Your task to perform on an android device: Open eBay Image 0: 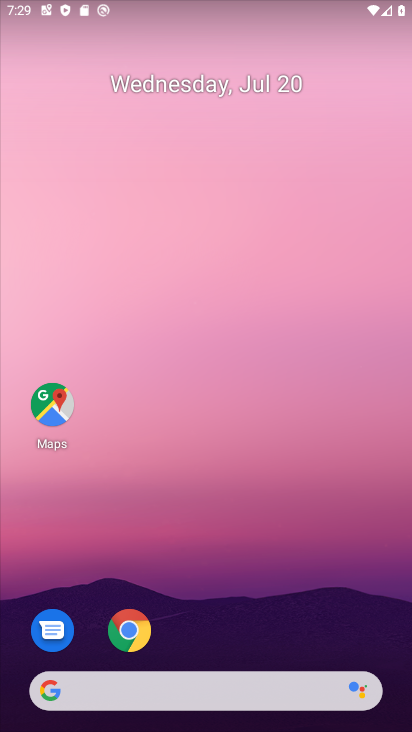
Step 0: click (131, 633)
Your task to perform on an android device: Open eBay Image 1: 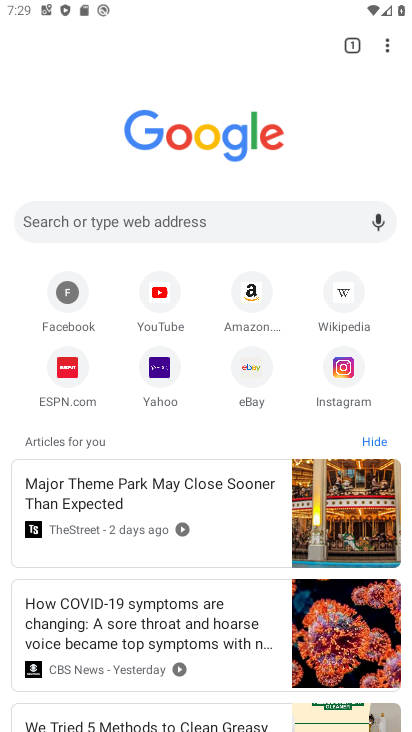
Step 1: click (251, 365)
Your task to perform on an android device: Open eBay Image 2: 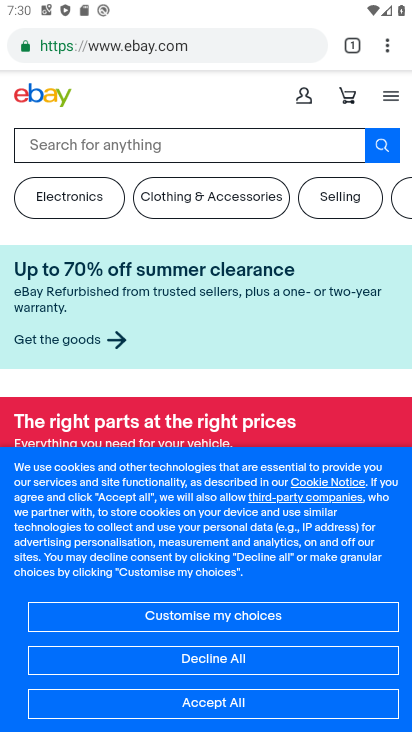
Step 2: click (216, 708)
Your task to perform on an android device: Open eBay Image 3: 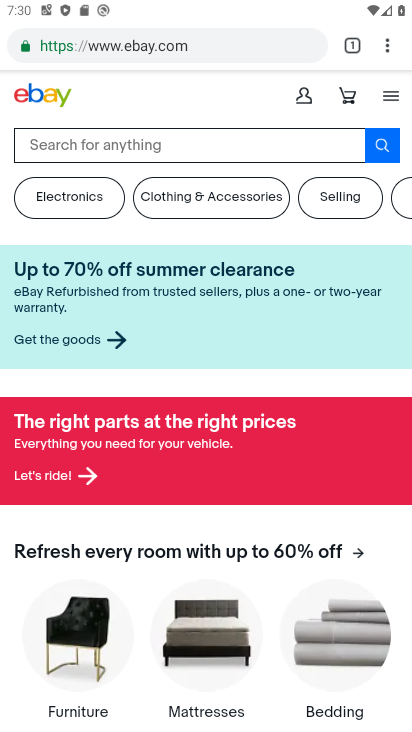
Step 3: task complete